Your task to perform on an android device: Open Google Chrome and open the bookmarks view Image 0: 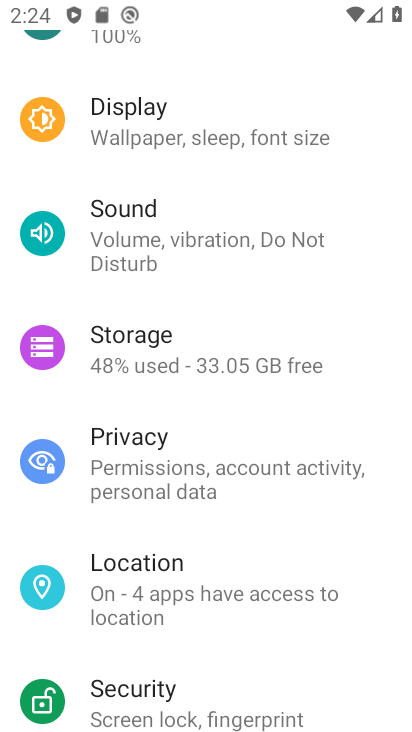
Step 0: press home button
Your task to perform on an android device: Open Google Chrome and open the bookmarks view Image 1: 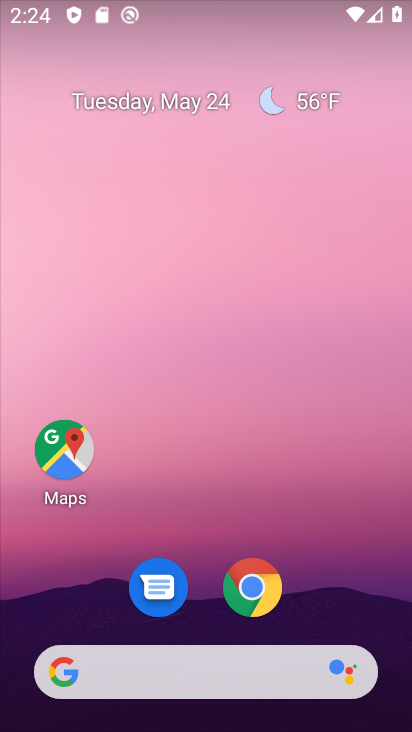
Step 1: click (259, 599)
Your task to perform on an android device: Open Google Chrome and open the bookmarks view Image 2: 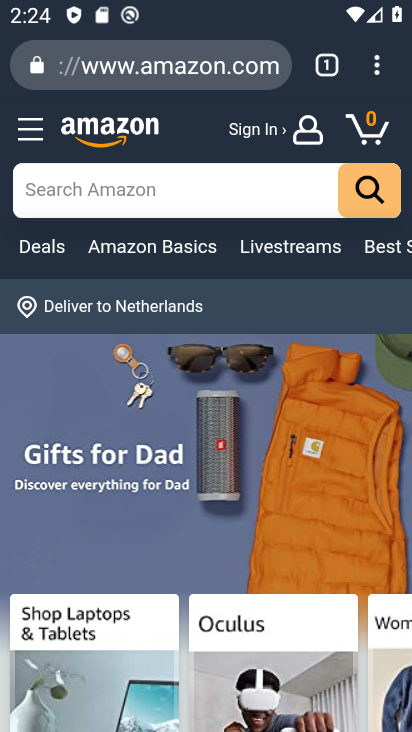
Step 2: click (385, 67)
Your task to perform on an android device: Open Google Chrome and open the bookmarks view Image 3: 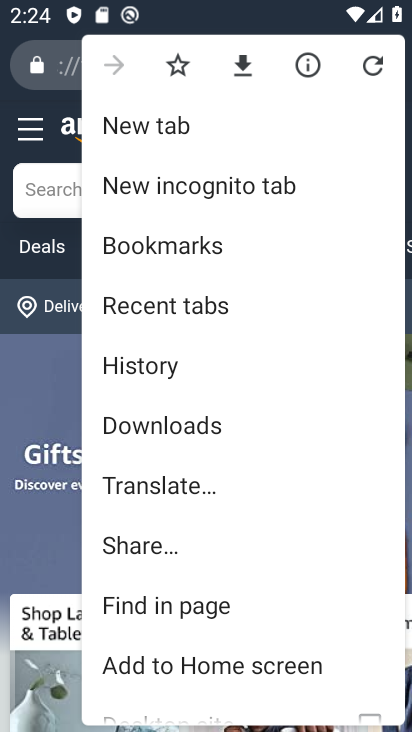
Step 3: click (189, 262)
Your task to perform on an android device: Open Google Chrome and open the bookmarks view Image 4: 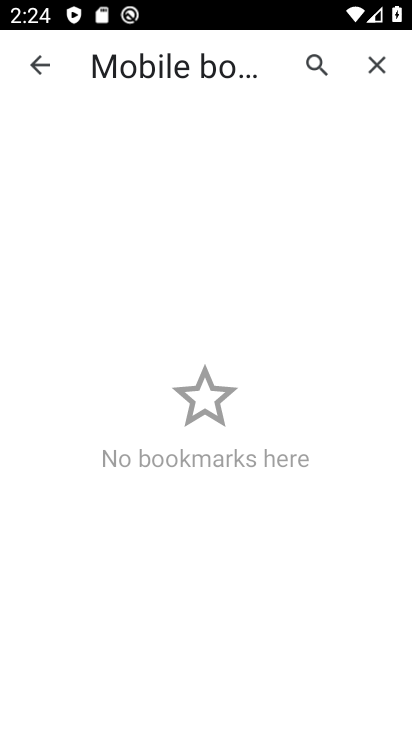
Step 4: task complete